Your task to perform on an android device: change notification settings in the gmail app Image 0: 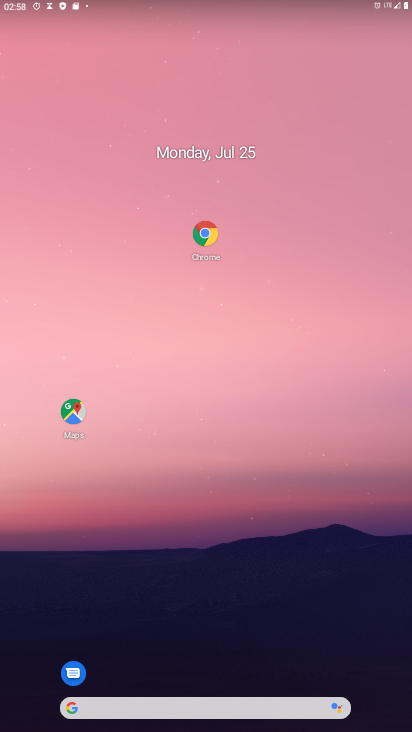
Step 0: drag from (261, 540) to (290, 180)
Your task to perform on an android device: change notification settings in the gmail app Image 1: 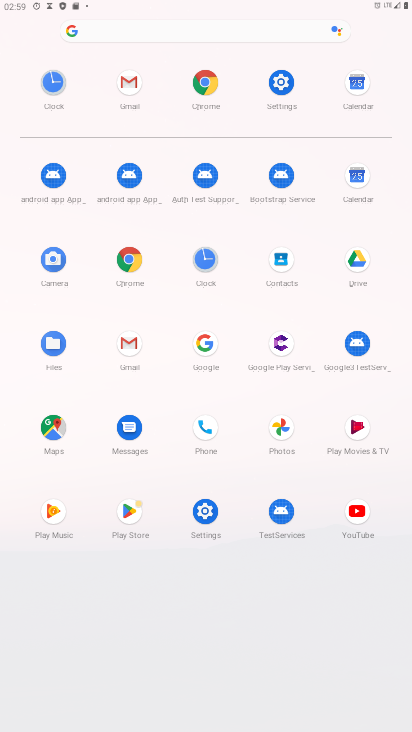
Step 1: click (133, 346)
Your task to perform on an android device: change notification settings in the gmail app Image 2: 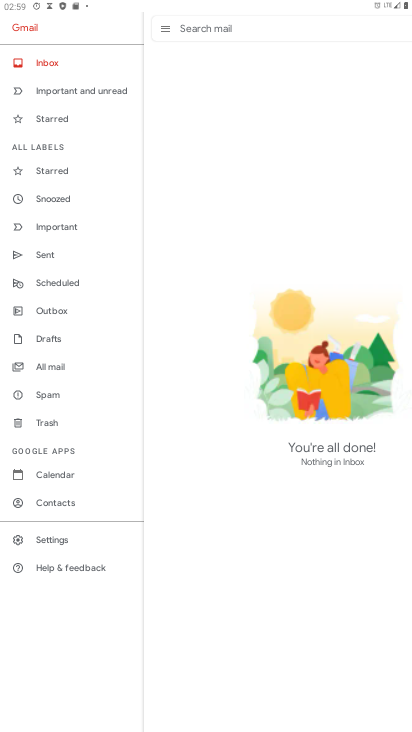
Step 2: click (55, 537)
Your task to perform on an android device: change notification settings in the gmail app Image 3: 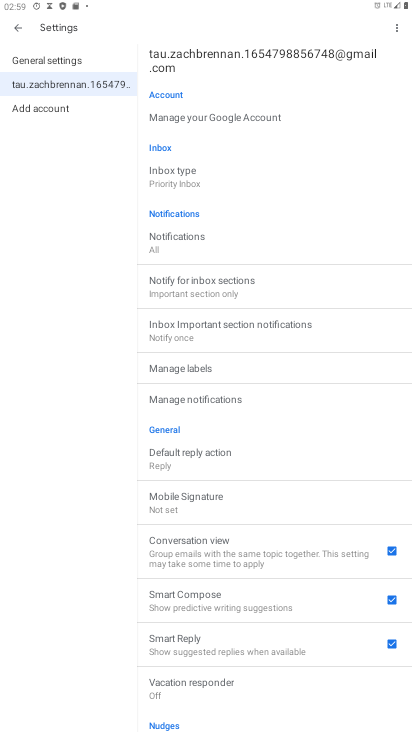
Step 3: click (184, 401)
Your task to perform on an android device: change notification settings in the gmail app Image 4: 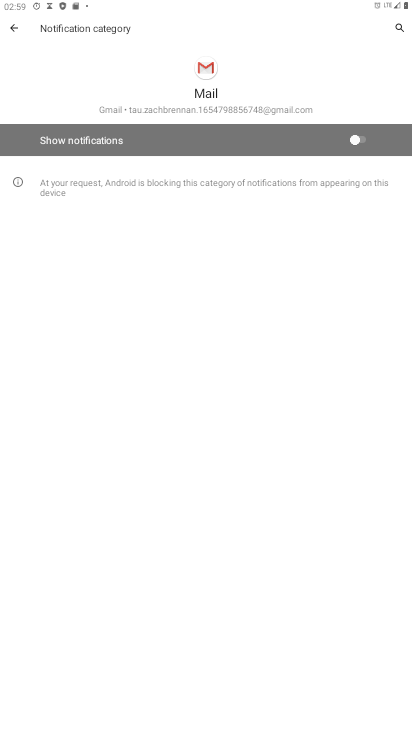
Step 4: click (366, 140)
Your task to perform on an android device: change notification settings in the gmail app Image 5: 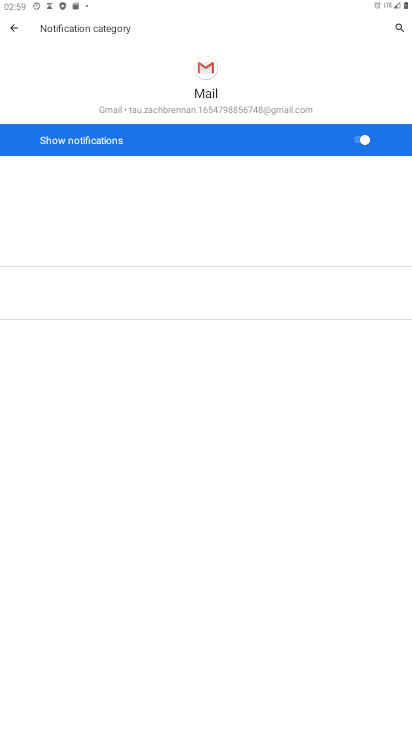
Step 5: task complete